Your task to perform on an android device: clear all cookies in the chrome app Image 0: 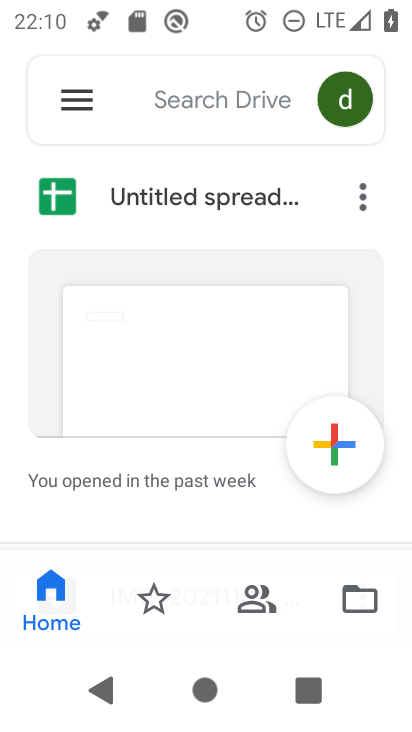
Step 0: press home button
Your task to perform on an android device: clear all cookies in the chrome app Image 1: 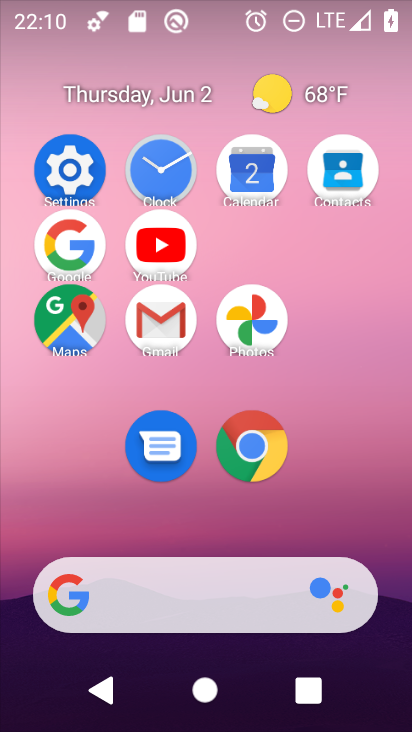
Step 1: click (266, 442)
Your task to perform on an android device: clear all cookies in the chrome app Image 2: 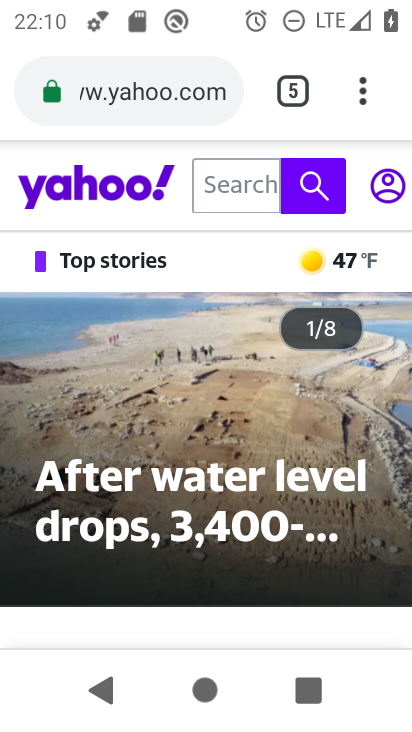
Step 2: click (367, 101)
Your task to perform on an android device: clear all cookies in the chrome app Image 3: 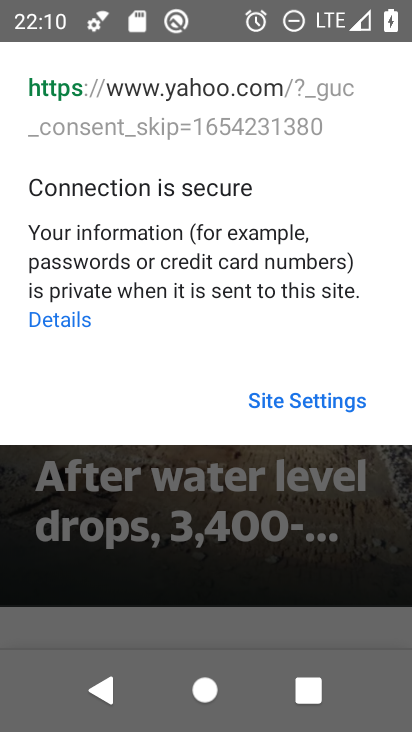
Step 3: click (372, 620)
Your task to perform on an android device: clear all cookies in the chrome app Image 4: 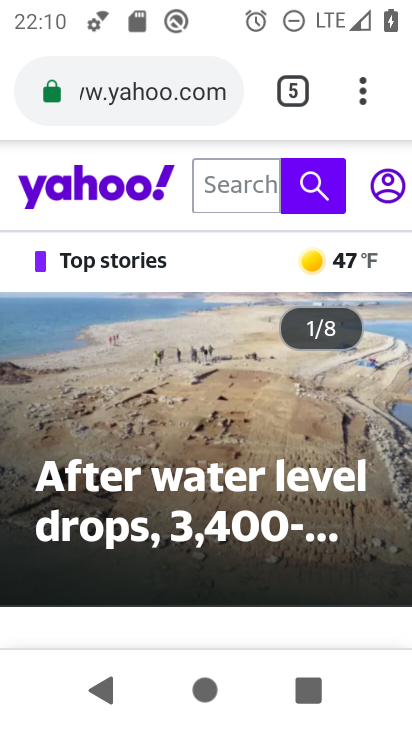
Step 4: click (390, 101)
Your task to perform on an android device: clear all cookies in the chrome app Image 5: 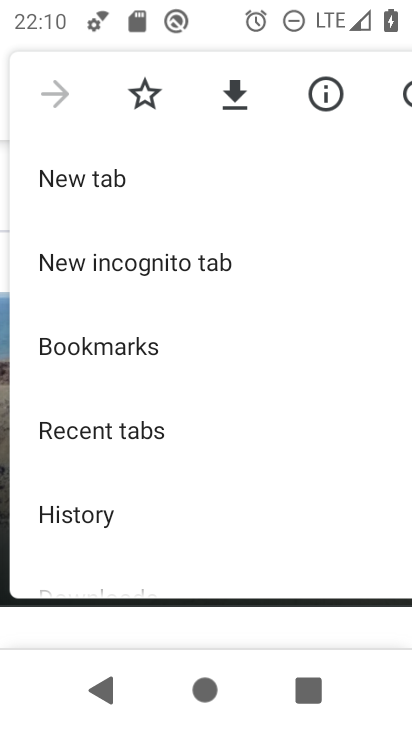
Step 5: drag from (228, 436) to (266, 132)
Your task to perform on an android device: clear all cookies in the chrome app Image 6: 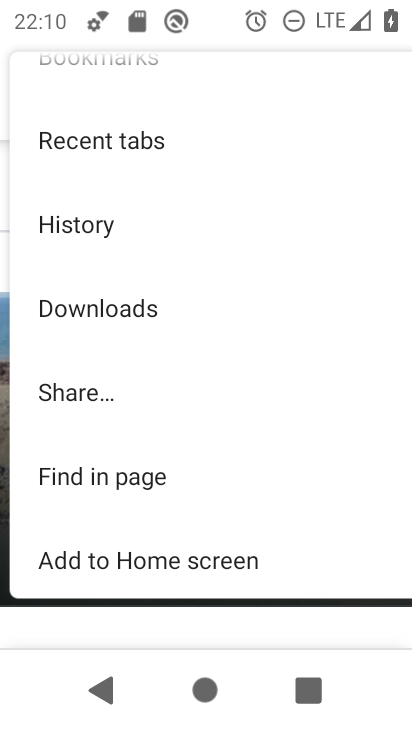
Step 6: drag from (184, 473) to (177, 141)
Your task to perform on an android device: clear all cookies in the chrome app Image 7: 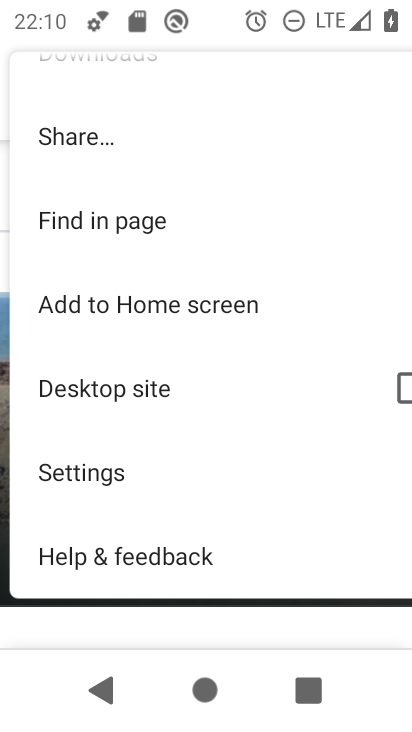
Step 7: click (130, 458)
Your task to perform on an android device: clear all cookies in the chrome app Image 8: 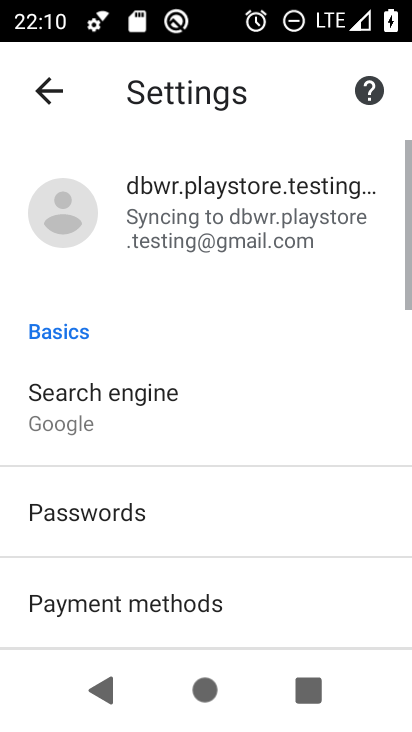
Step 8: drag from (172, 493) to (198, 150)
Your task to perform on an android device: clear all cookies in the chrome app Image 9: 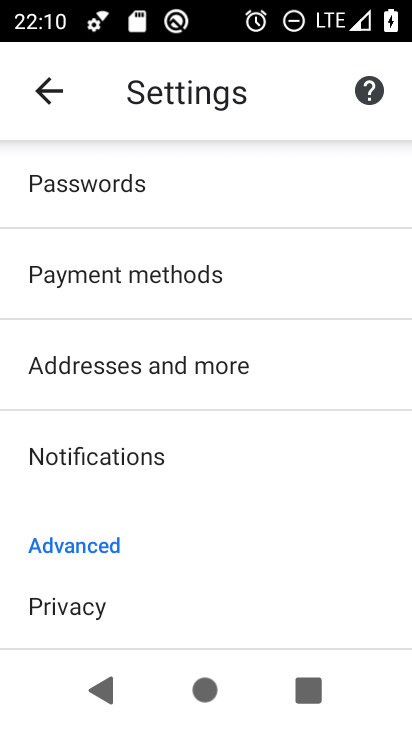
Step 9: drag from (225, 504) to (219, 165)
Your task to perform on an android device: clear all cookies in the chrome app Image 10: 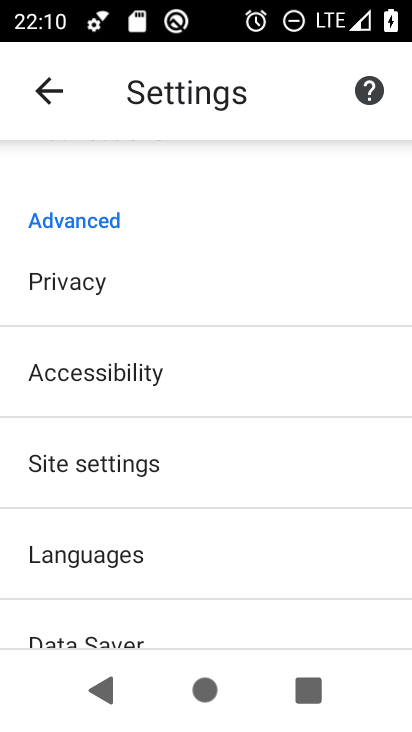
Step 10: drag from (269, 550) to (275, 255)
Your task to perform on an android device: clear all cookies in the chrome app Image 11: 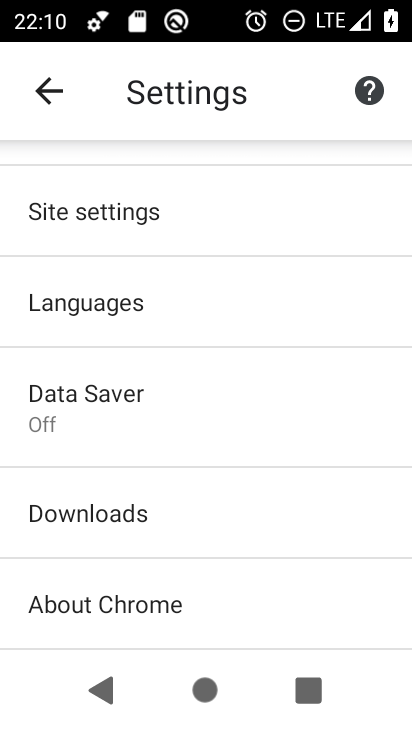
Step 11: drag from (289, 220) to (349, 443)
Your task to perform on an android device: clear all cookies in the chrome app Image 12: 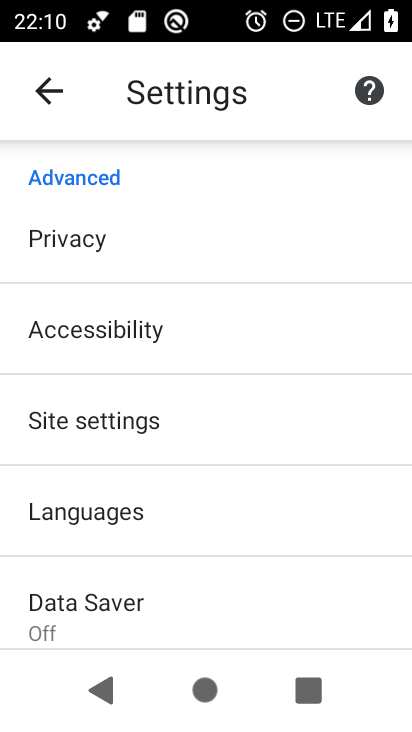
Step 12: click (254, 242)
Your task to perform on an android device: clear all cookies in the chrome app Image 13: 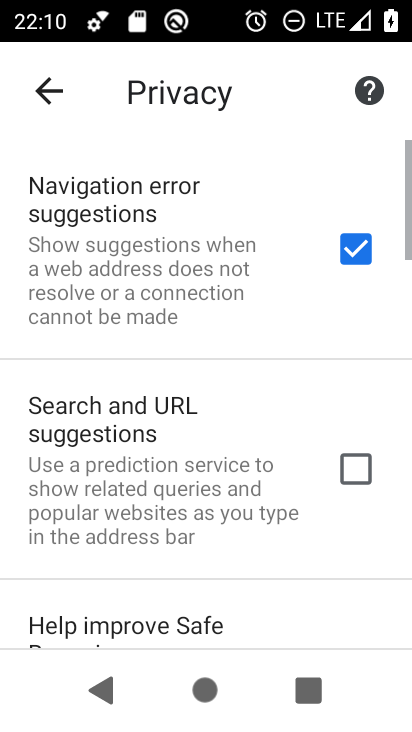
Step 13: drag from (286, 530) to (273, 237)
Your task to perform on an android device: clear all cookies in the chrome app Image 14: 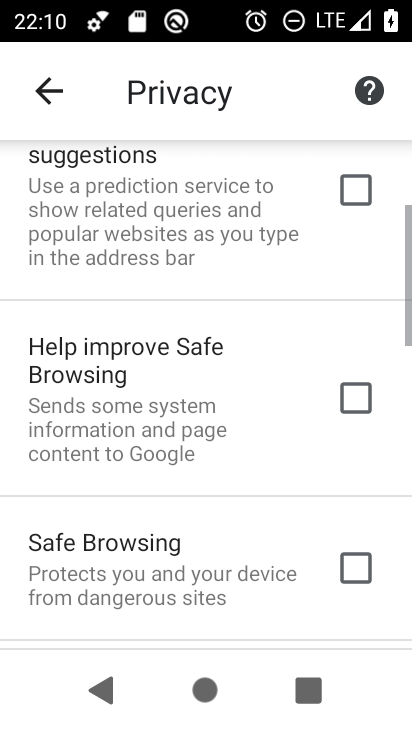
Step 14: drag from (314, 565) to (283, 248)
Your task to perform on an android device: clear all cookies in the chrome app Image 15: 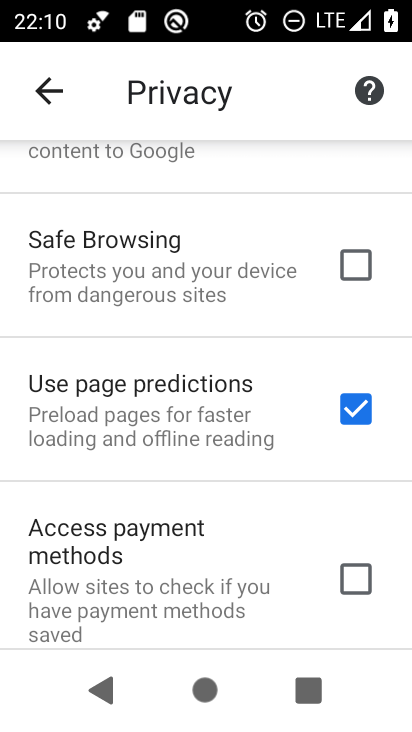
Step 15: drag from (269, 594) to (244, 239)
Your task to perform on an android device: clear all cookies in the chrome app Image 16: 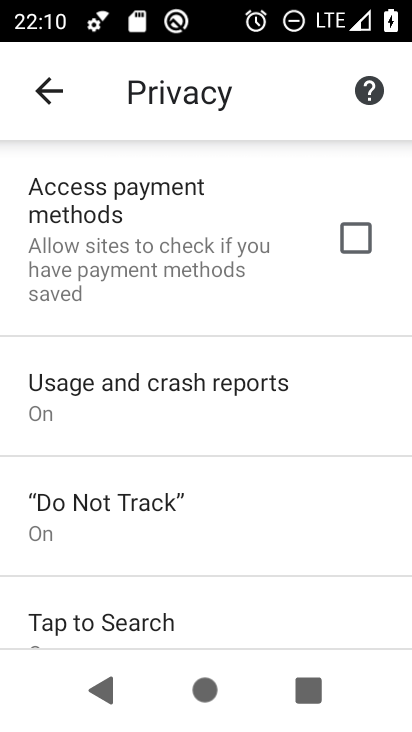
Step 16: drag from (253, 604) to (244, 270)
Your task to perform on an android device: clear all cookies in the chrome app Image 17: 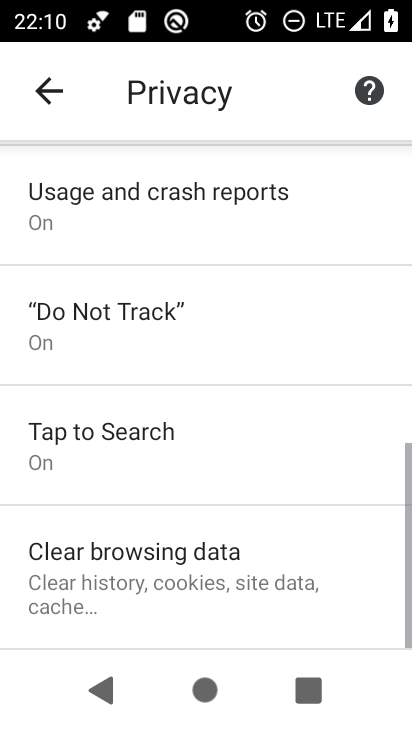
Step 17: click (225, 620)
Your task to perform on an android device: clear all cookies in the chrome app Image 18: 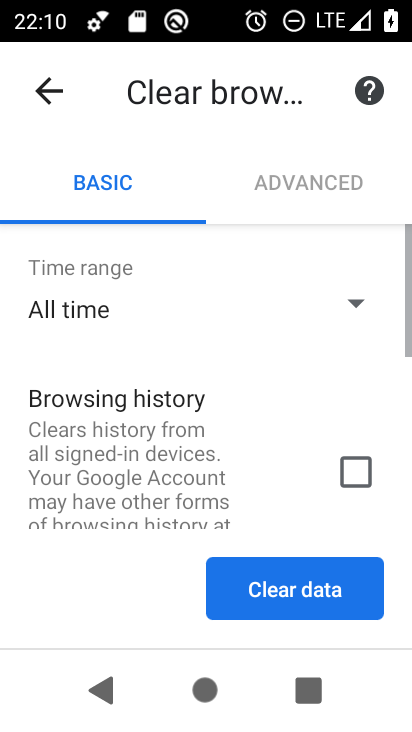
Step 18: drag from (235, 493) to (230, 209)
Your task to perform on an android device: clear all cookies in the chrome app Image 19: 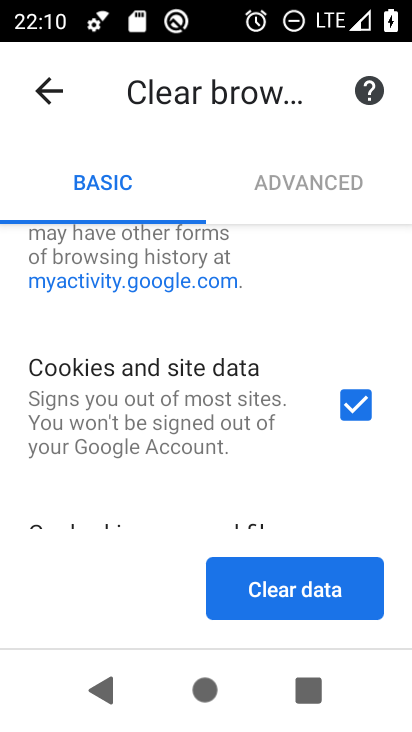
Step 19: drag from (271, 478) to (262, 250)
Your task to perform on an android device: clear all cookies in the chrome app Image 20: 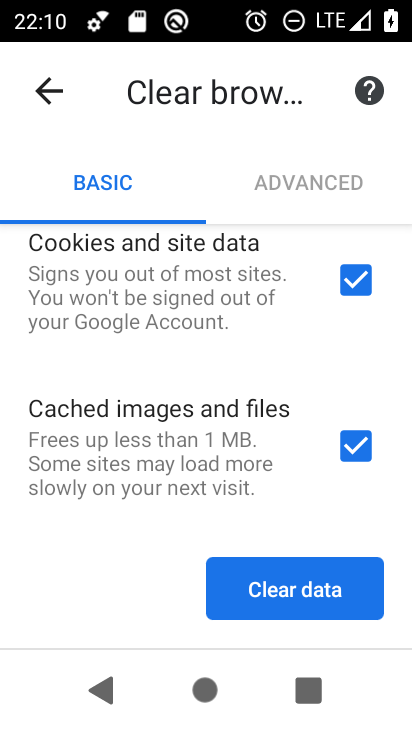
Step 20: click (340, 584)
Your task to perform on an android device: clear all cookies in the chrome app Image 21: 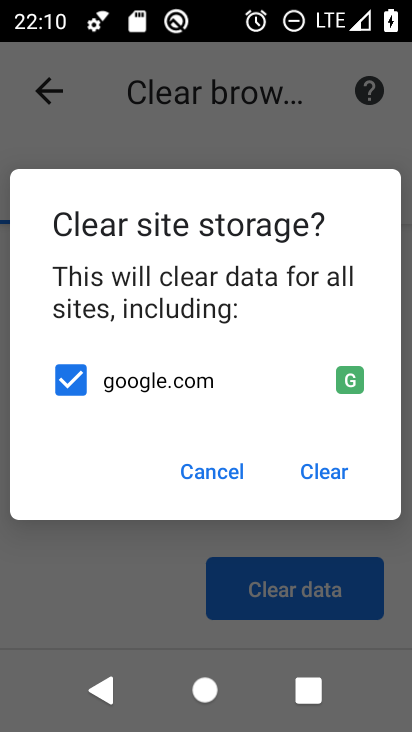
Step 21: click (343, 485)
Your task to perform on an android device: clear all cookies in the chrome app Image 22: 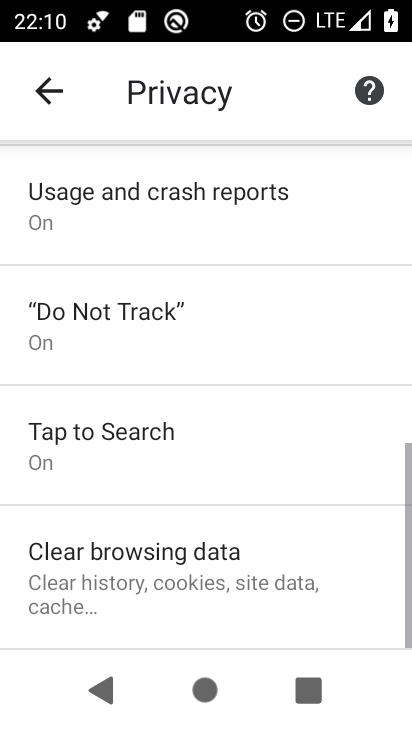
Step 22: task complete